Your task to perform on an android device: delete location history Image 0: 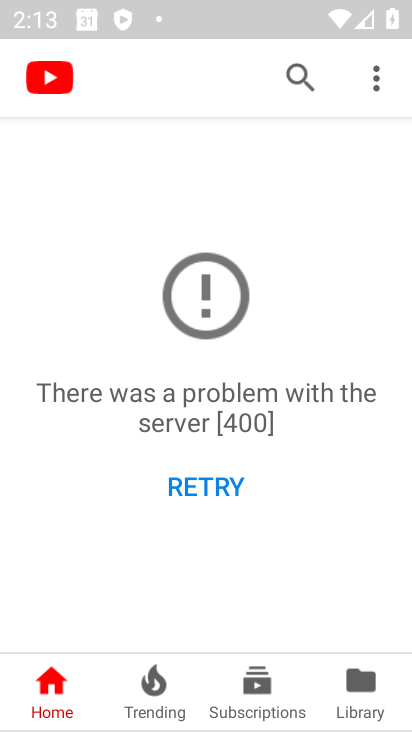
Step 0: press home button
Your task to perform on an android device: delete location history Image 1: 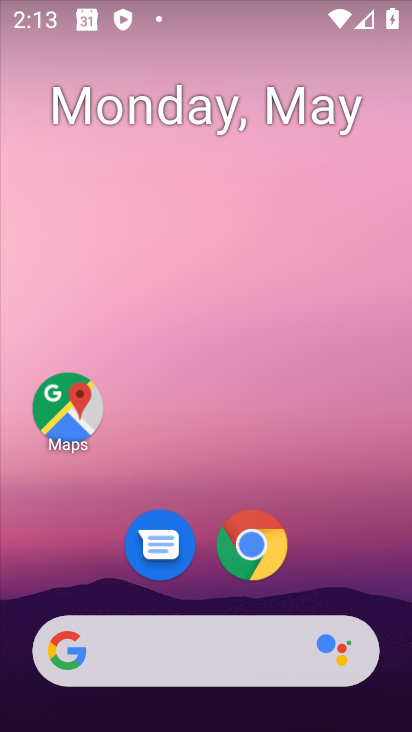
Step 1: click (239, 555)
Your task to perform on an android device: delete location history Image 2: 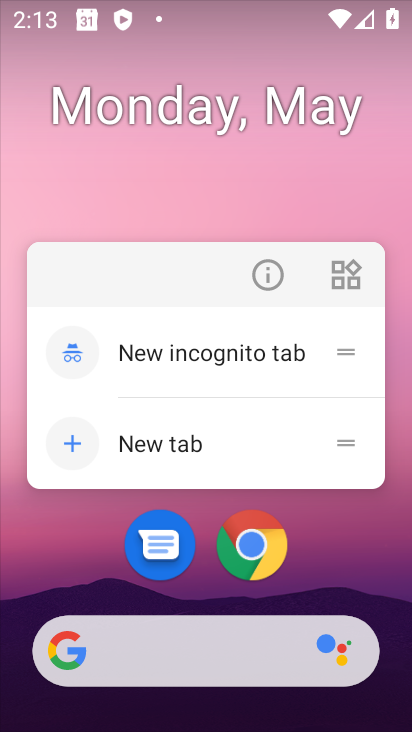
Step 2: click (261, 521)
Your task to perform on an android device: delete location history Image 3: 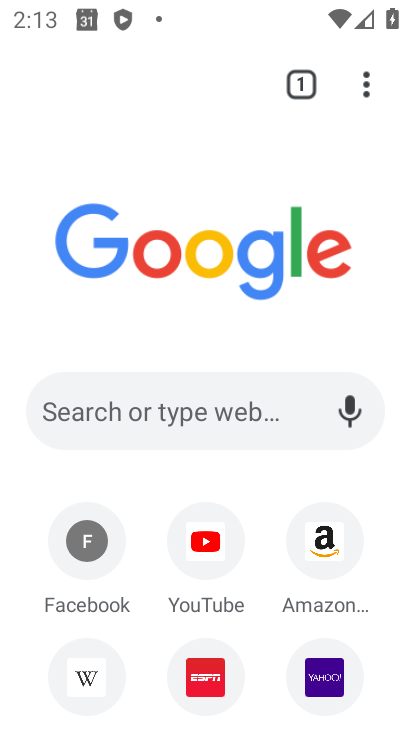
Step 3: drag from (365, 79) to (233, 517)
Your task to perform on an android device: delete location history Image 4: 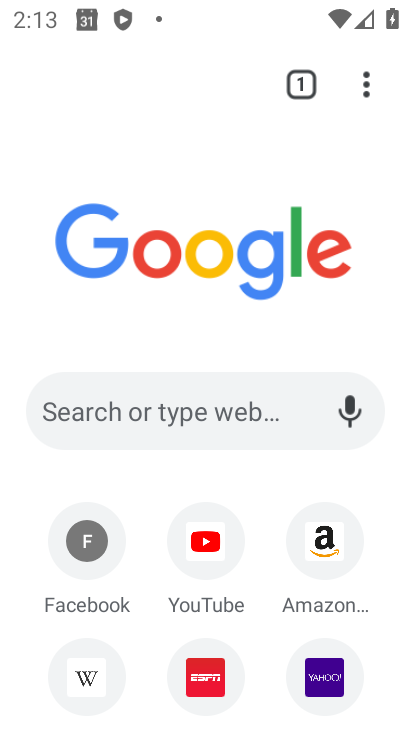
Step 4: press home button
Your task to perform on an android device: delete location history Image 5: 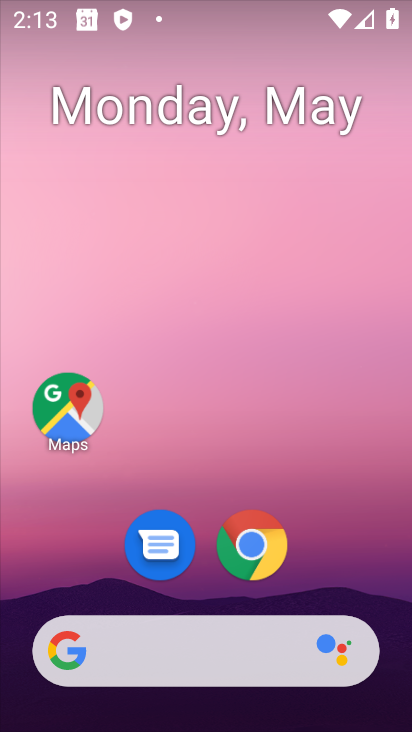
Step 5: click (64, 406)
Your task to perform on an android device: delete location history Image 6: 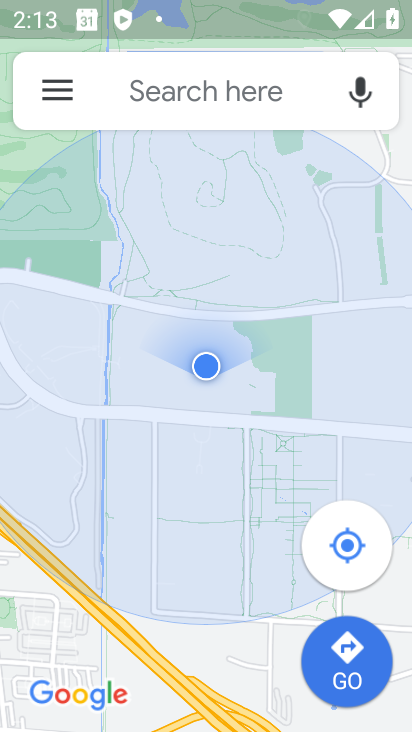
Step 6: click (56, 101)
Your task to perform on an android device: delete location history Image 7: 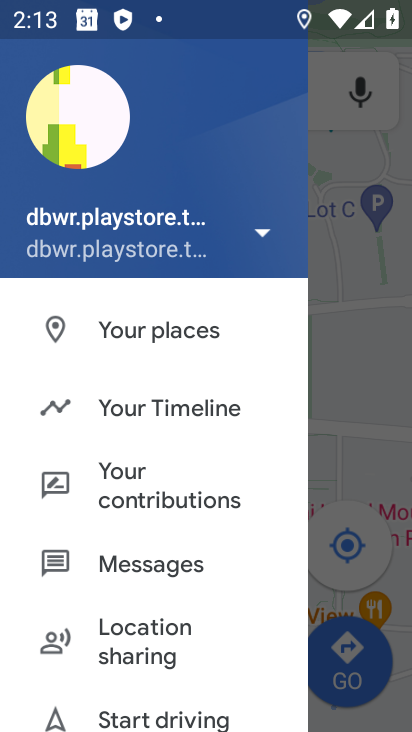
Step 7: click (123, 409)
Your task to perform on an android device: delete location history Image 8: 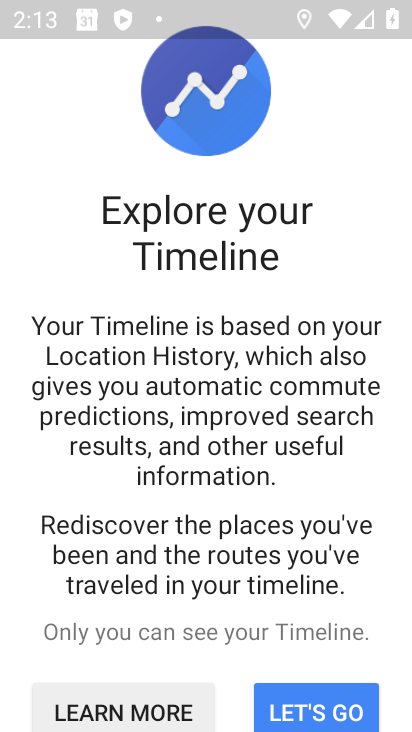
Step 8: click (301, 709)
Your task to perform on an android device: delete location history Image 9: 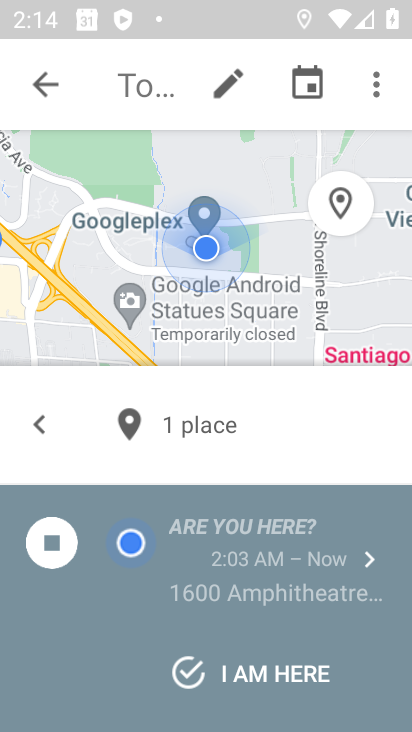
Step 9: click (375, 92)
Your task to perform on an android device: delete location history Image 10: 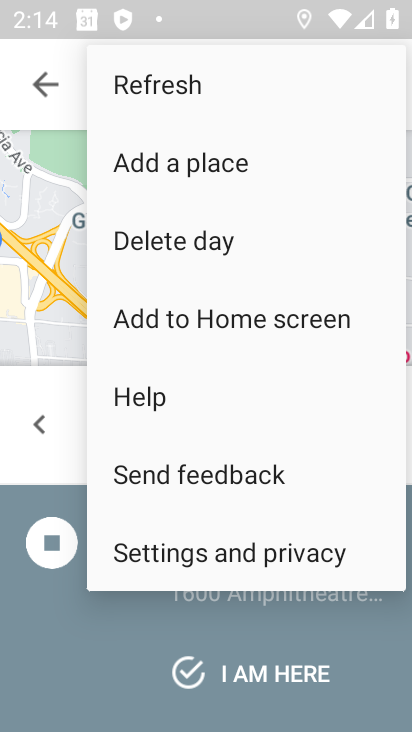
Step 10: click (234, 552)
Your task to perform on an android device: delete location history Image 11: 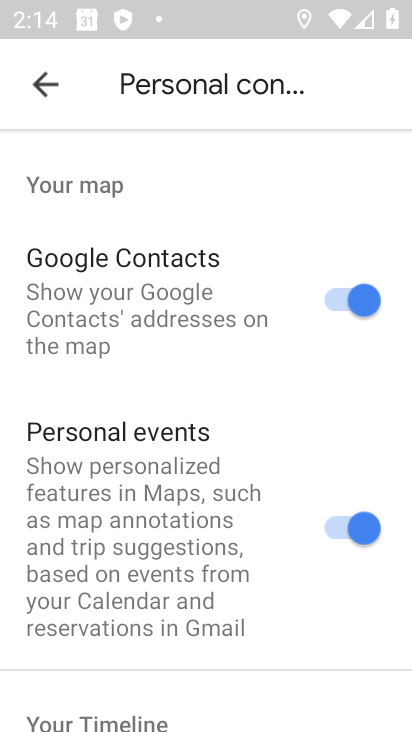
Step 11: drag from (155, 652) to (202, 304)
Your task to perform on an android device: delete location history Image 12: 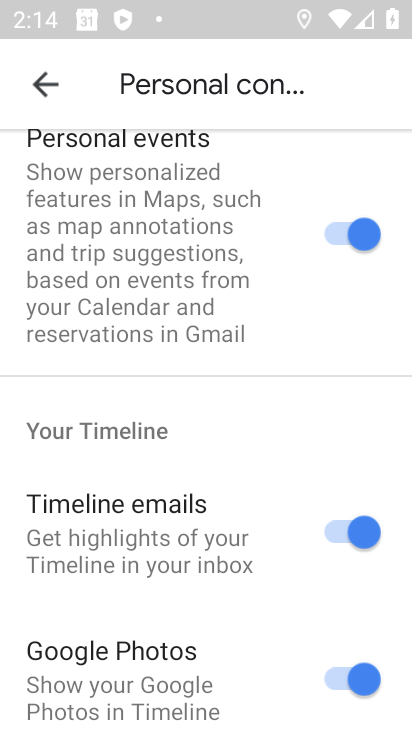
Step 12: drag from (191, 583) to (219, 273)
Your task to perform on an android device: delete location history Image 13: 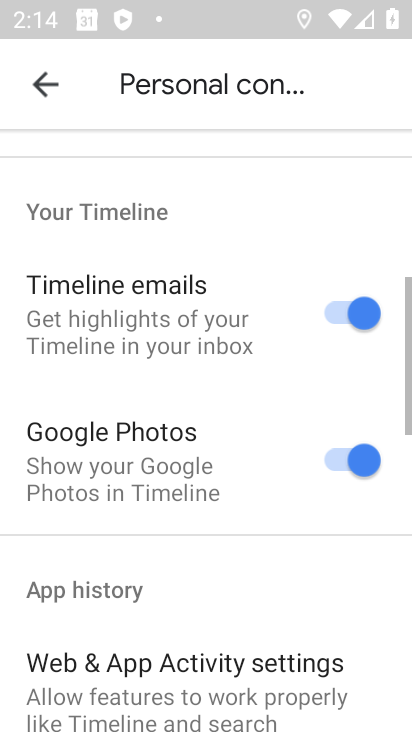
Step 13: drag from (185, 659) to (219, 326)
Your task to perform on an android device: delete location history Image 14: 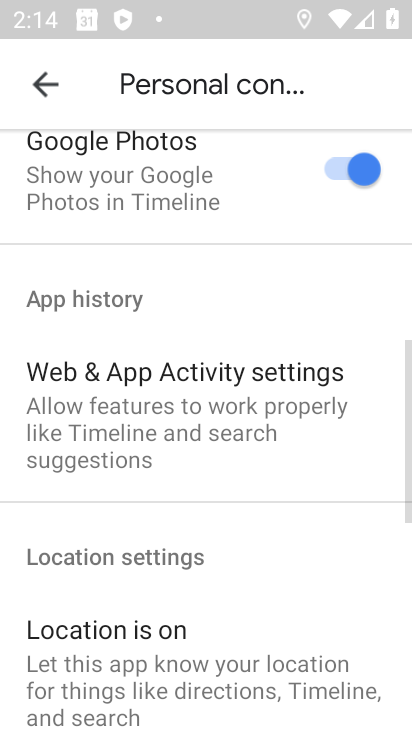
Step 14: drag from (187, 653) to (219, 381)
Your task to perform on an android device: delete location history Image 15: 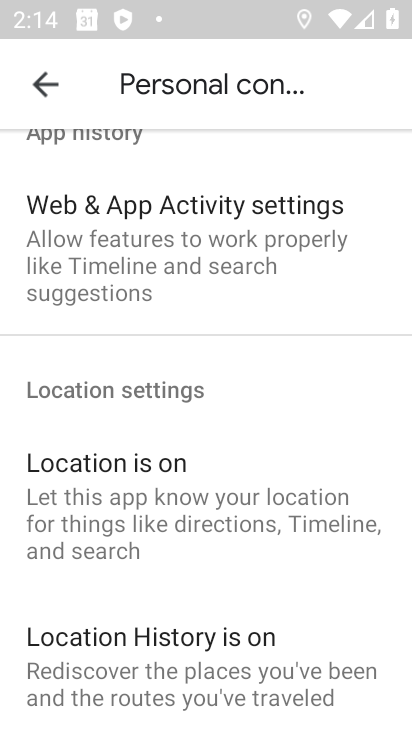
Step 15: drag from (216, 608) to (234, 436)
Your task to perform on an android device: delete location history Image 16: 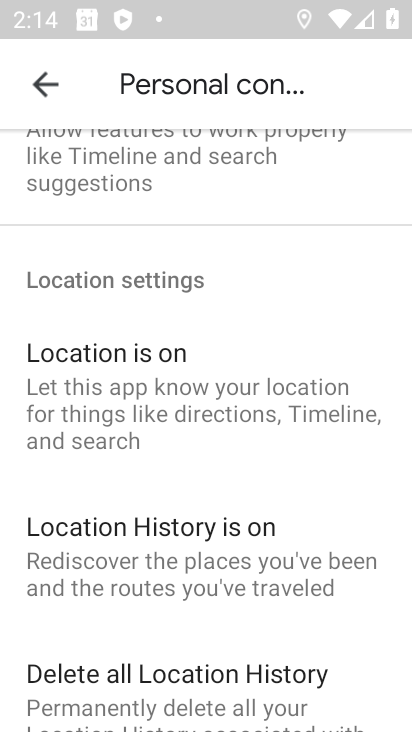
Step 16: click (197, 679)
Your task to perform on an android device: delete location history Image 17: 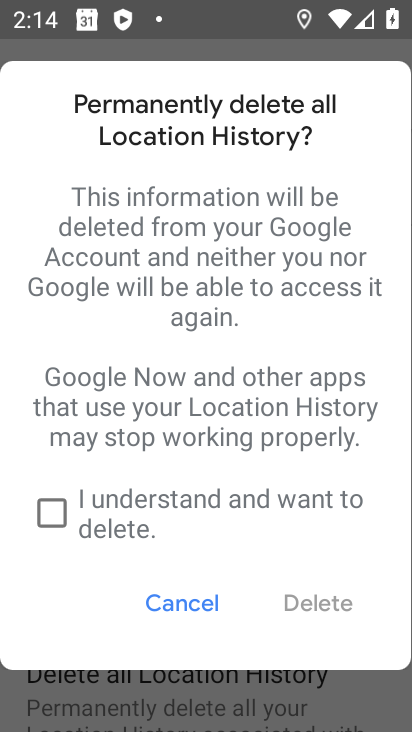
Step 17: click (151, 522)
Your task to perform on an android device: delete location history Image 18: 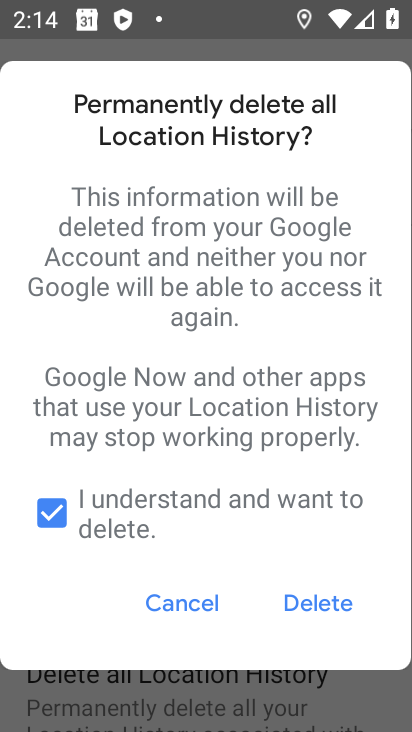
Step 18: click (287, 605)
Your task to perform on an android device: delete location history Image 19: 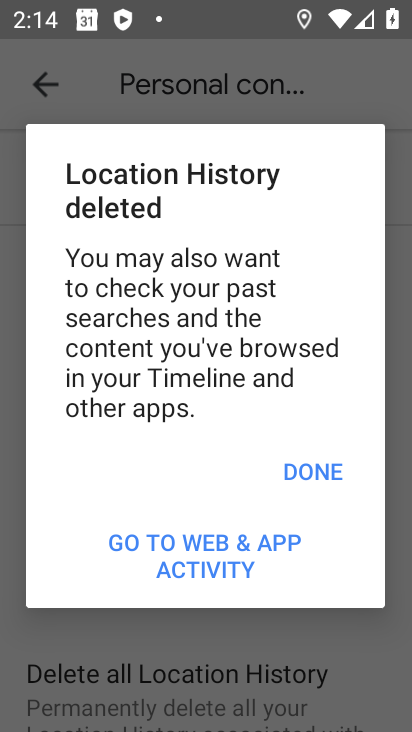
Step 19: click (329, 475)
Your task to perform on an android device: delete location history Image 20: 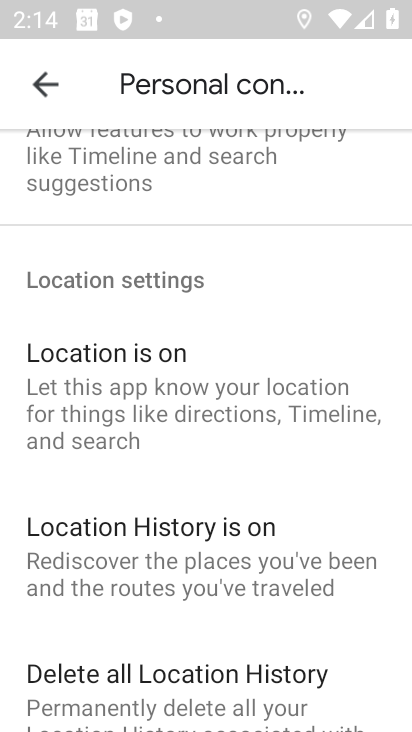
Step 20: task complete